Your task to perform on an android device: delete location history Image 0: 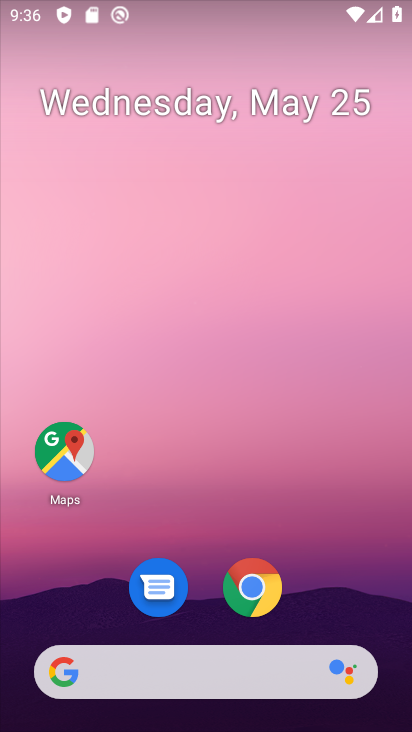
Step 0: drag from (200, 610) to (223, 23)
Your task to perform on an android device: delete location history Image 1: 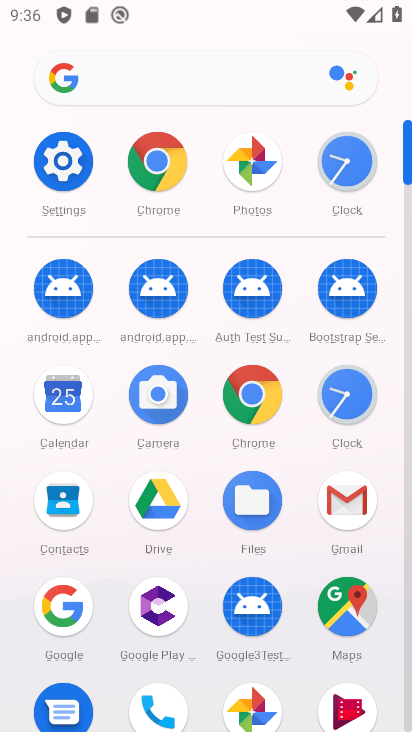
Step 1: click (72, 178)
Your task to perform on an android device: delete location history Image 2: 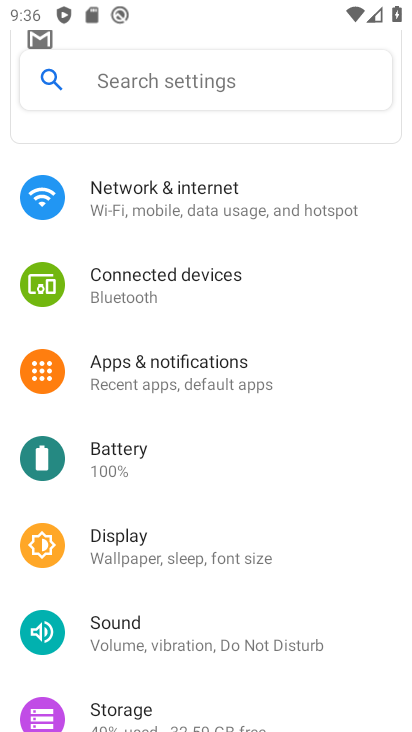
Step 2: press home button
Your task to perform on an android device: delete location history Image 3: 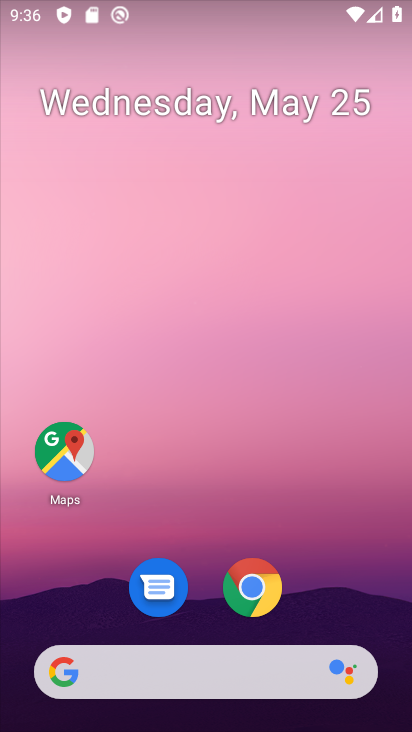
Step 3: click (75, 455)
Your task to perform on an android device: delete location history Image 4: 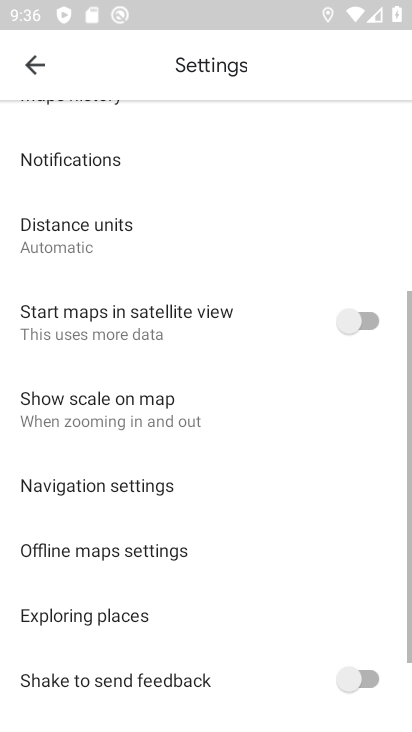
Step 4: click (44, 65)
Your task to perform on an android device: delete location history Image 5: 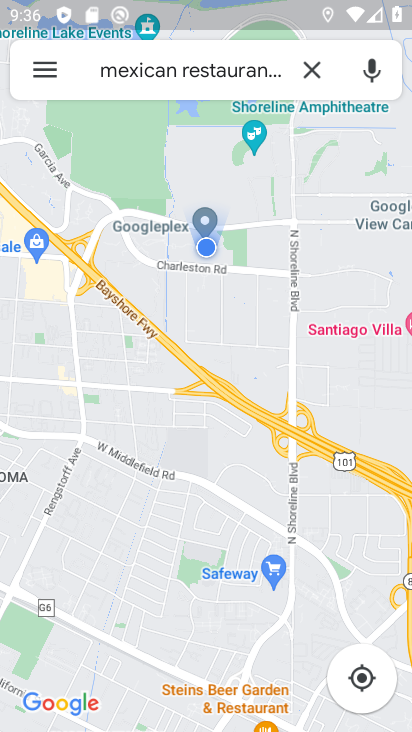
Step 5: click (42, 67)
Your task to perform on an android device: delete location history Image 6: 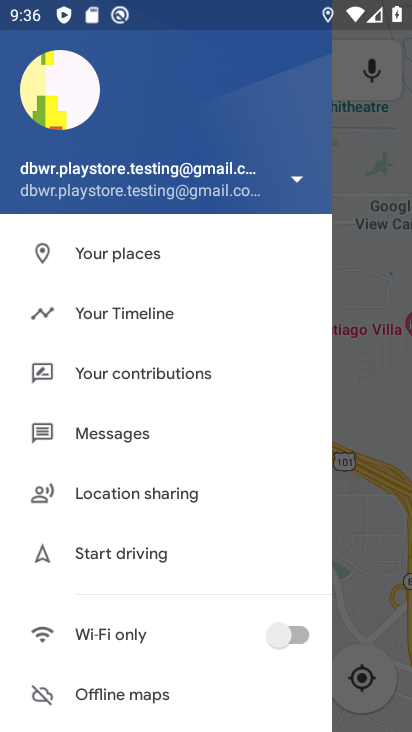
Step 6: click (153, 314)
Your task to perform on an android device: delete location history Image 7: 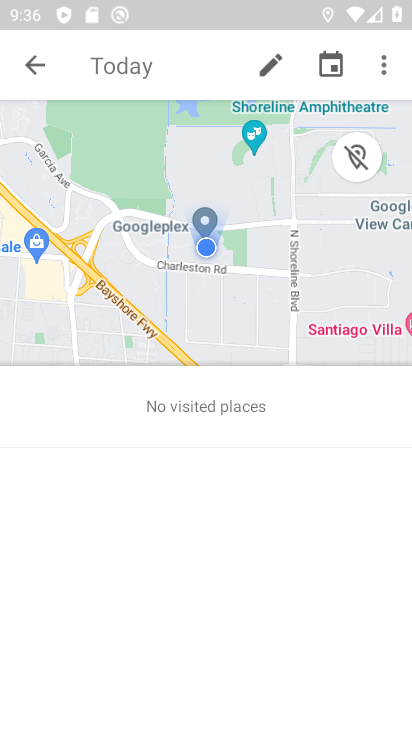
Step 7: click (379, 70)
Your task to perform on an android device: delete location history Image 8: 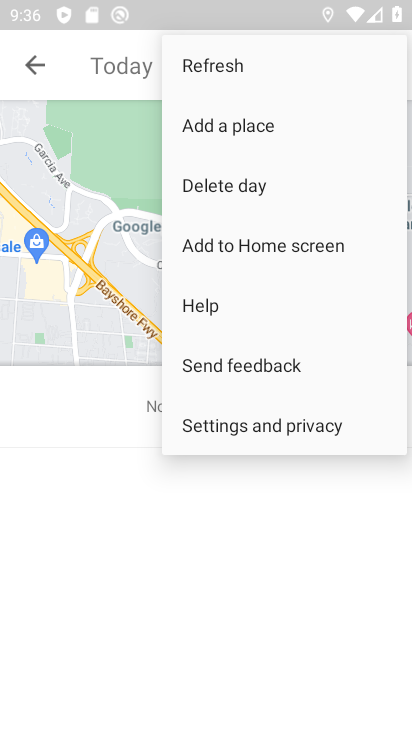
Step 8: click (258, 426)
Your task to perform on an android device: delete location history Image 9: 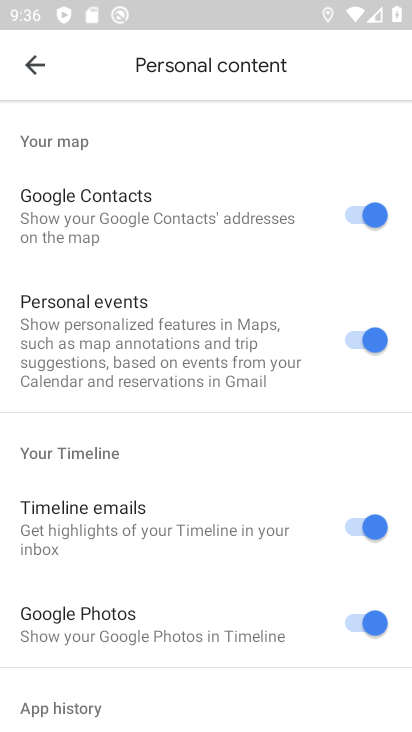
Step 9: drag from (183, 535) to (258, 98)
Your task to perform on an android device: delete location history Image 10: 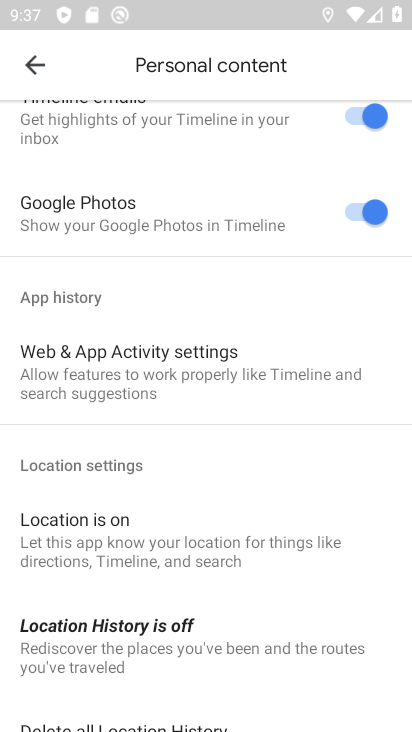
Step 10: drag from (170, 540) to (190, 304)
Your task to perform on an android device: delete location history Image 11: 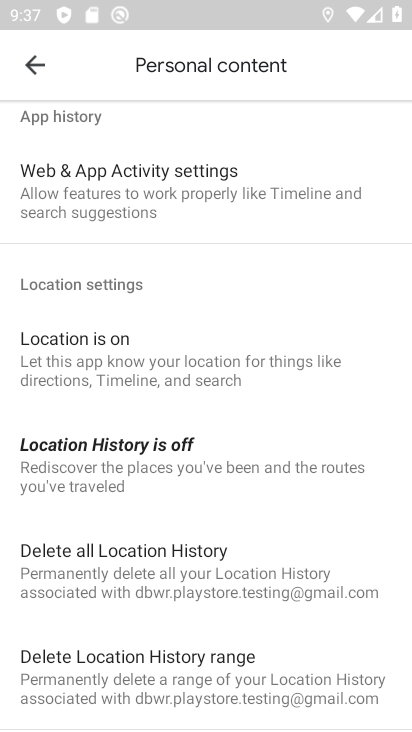
Step 11: click (135, 564)
Your task to perform on an android device: delete location history Image 12: 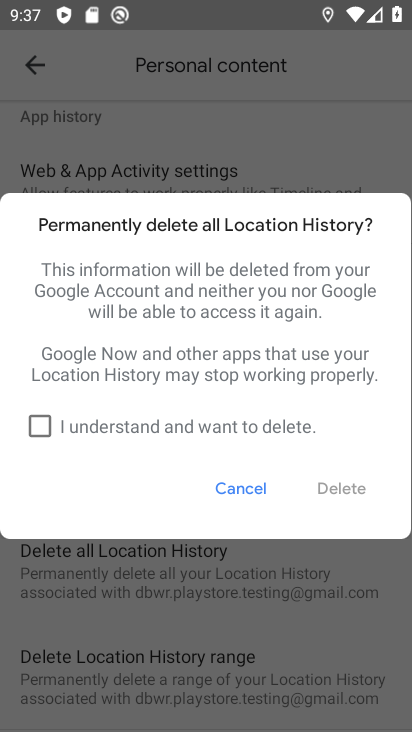
Step 12: click (149, 434)
Your task to perform on an android device: delete location history Image 13: 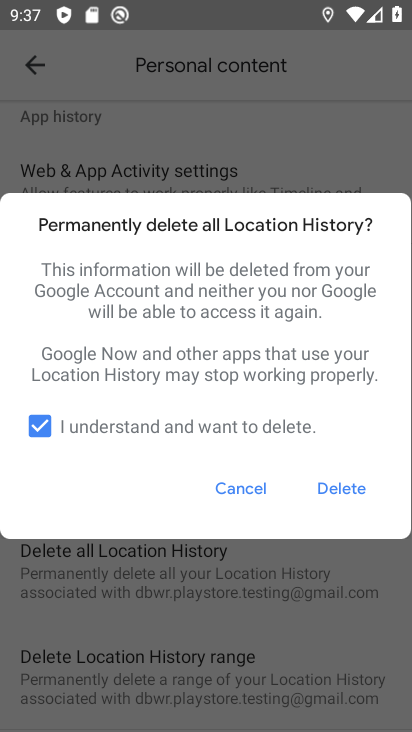
Step 13: click (355, 493)
Your task to perform on an android device: delete location history Image 14: 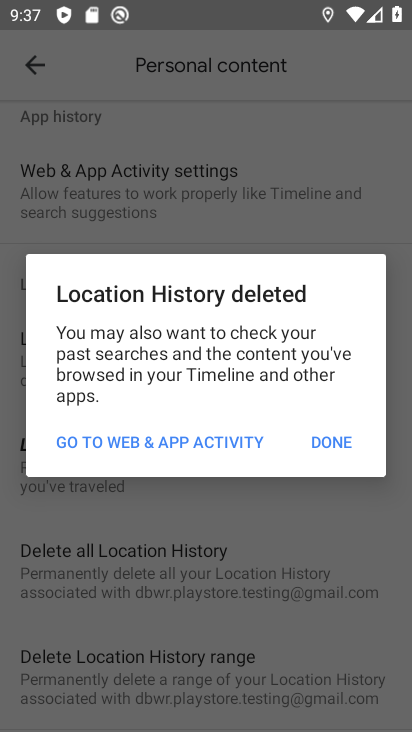
Step 14: click (333, 437)
Your task to perform on an android device: delete location history Image 15: 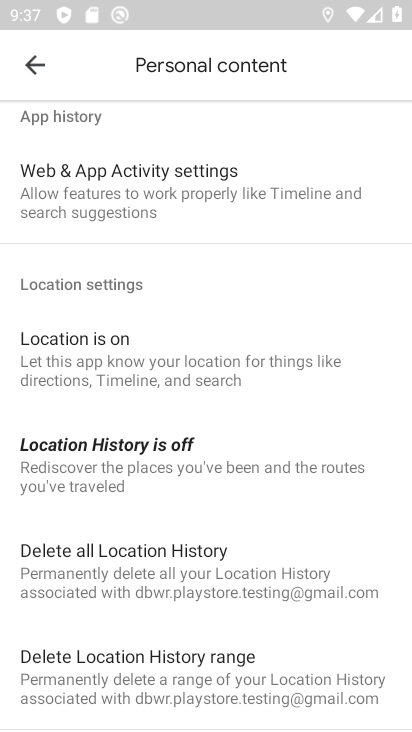
Step 15: task complete